Your task to perform on an android device: toggle wifi Image 0: 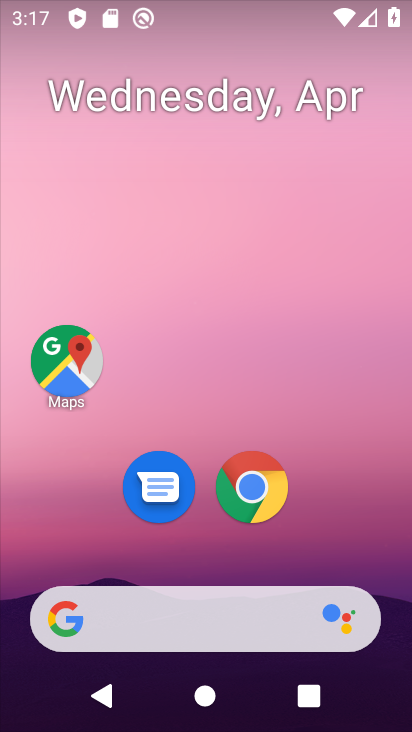
Step 0: drag from (350, 537) to (300, 79)
Your task to perform on an android device: toggle wifi Image 1: 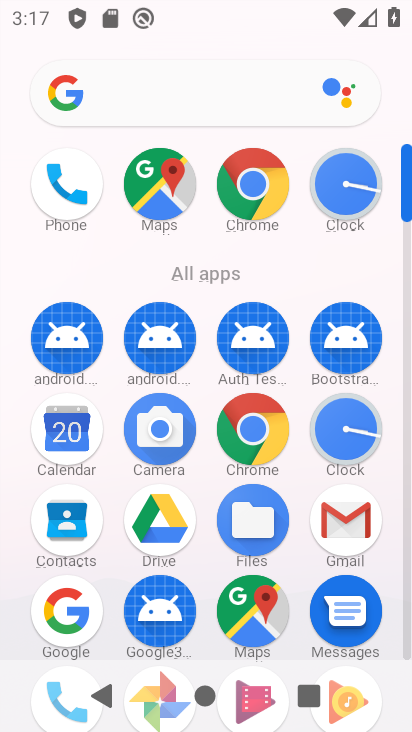
Step 1: drag from (313, 46) to (302, 684)
Your task to perform on an android device: toggle wifi Image 2: 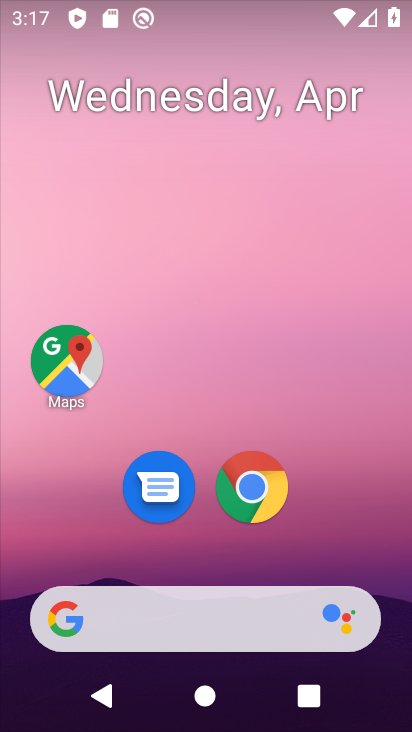
Step 2: drag from (147, 12) to (165, 642)
Your task to perform on an android device: toggle wifi Image 3: 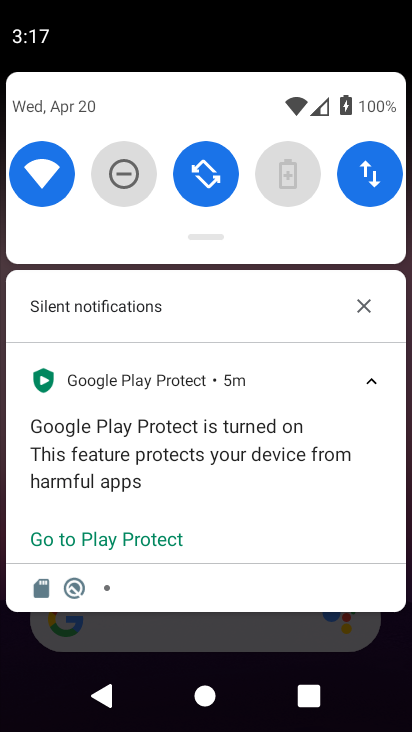
Step 3: click (51, 187)
Your task to perform on an android device: toggle wifi Image 4: 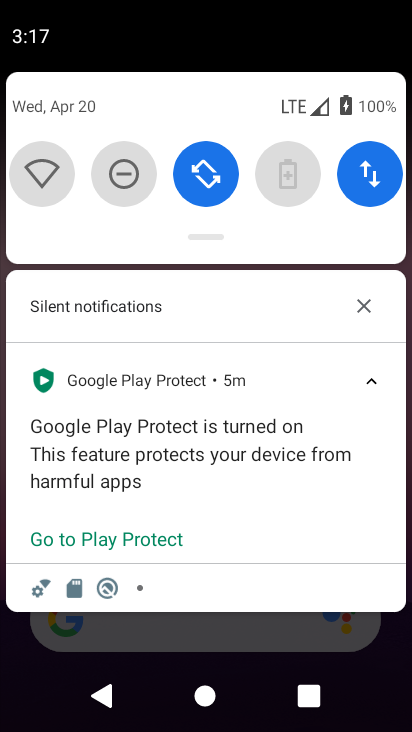
Step 4: task complete